Your task to perform on an android device: toggle priority inbox in the gmail app Image 0: 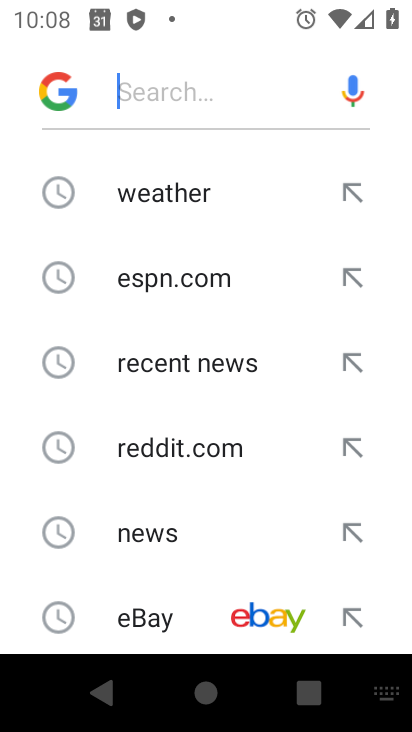
Step 0: press home button
Your task to perform on an android device: toggle priority inbox in the gmail app Image 1: 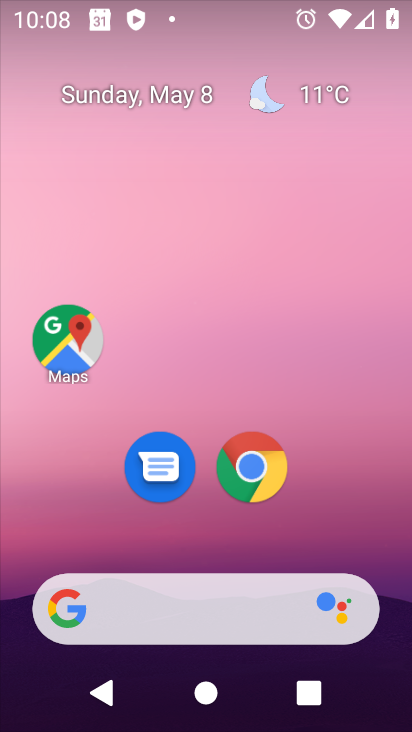
Step 1: drag from (65, 576) to (306, 180)
Your task to perform on an android device: toggle priority inbox in the gmail app Image 2: 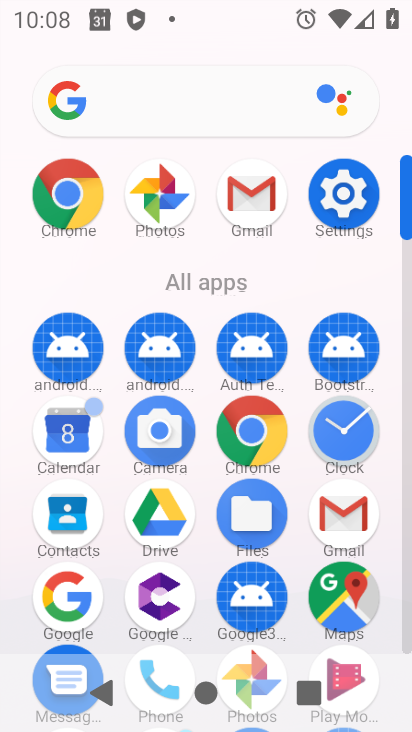
Step 2: click (225, 203)
Your task to perform on an android device: toggle priority inbox in the gmail app Image 3: 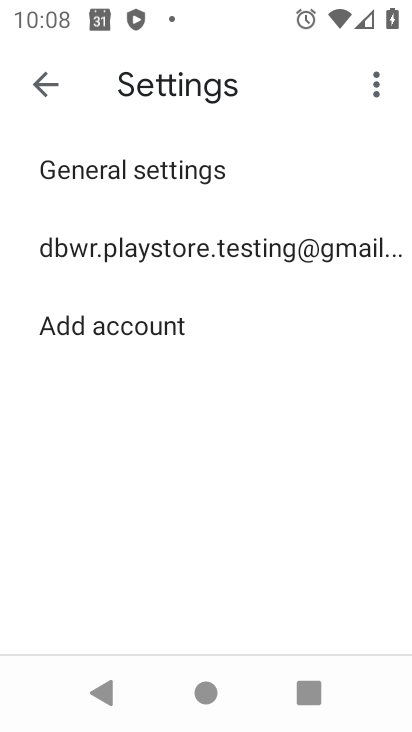
Step 3: click (267, 247)
Your task to perform on an android device: toggle priority inbox in the gmail app Image 4: 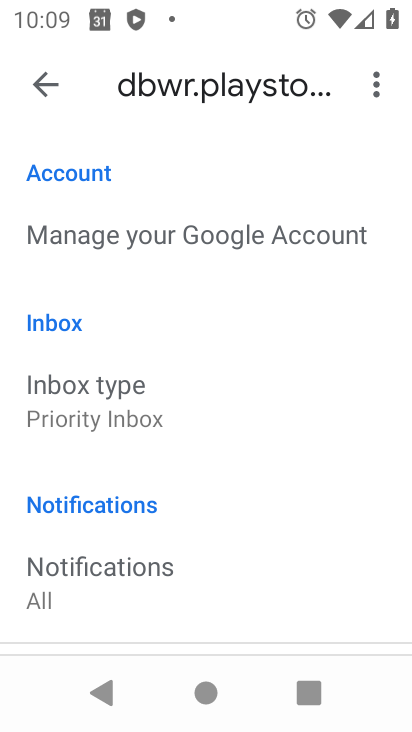
Step 4: click (122, 415)
Your task to perform on an android device: toggle priority inbox in the gmail app Image 5: 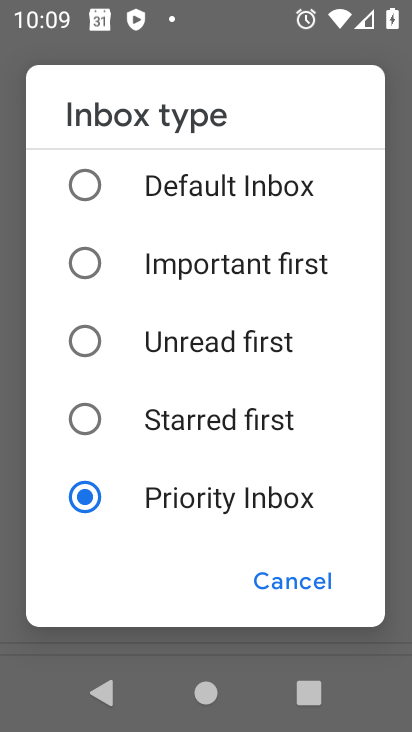
Step 5: click (193, 408)
Your task to perform on an android device: toggle priority inbox in the gmail app Image 6: 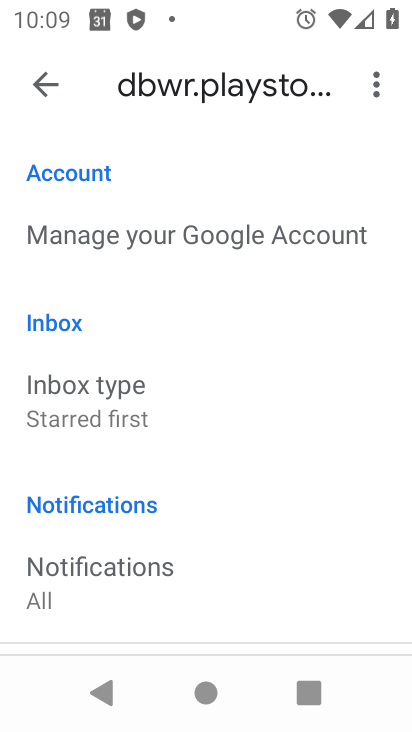
Step 6: task complete